Your task to perform on an android device: toggle improve location accuracy Image 0: 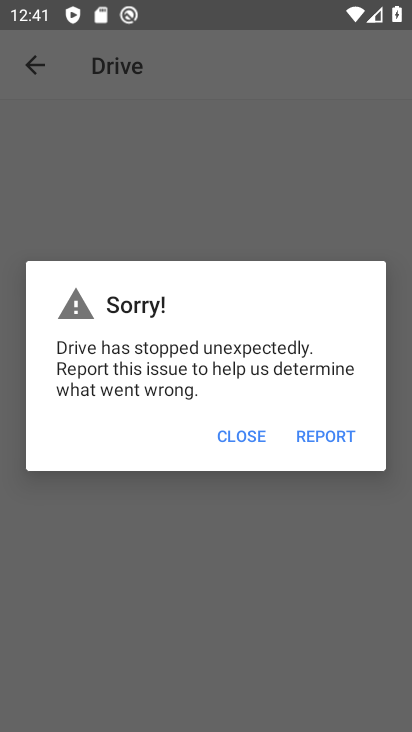
Step 0: press home button
Your task to perform on an android device: toggle improve location accuracy Image 1: 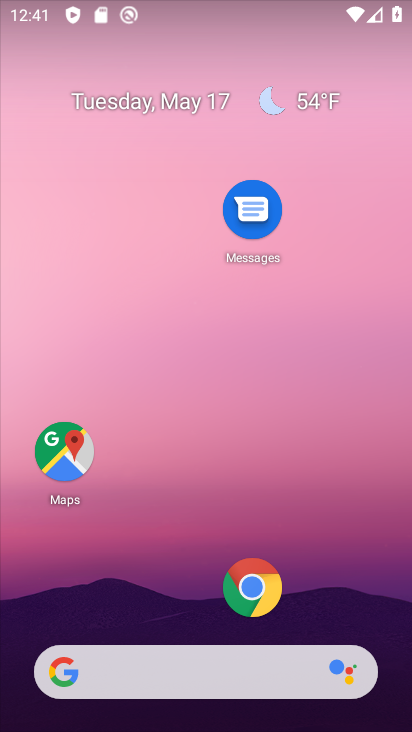
Step 1: drag from (150, 604) to (246, 7)
Your task to perform on an android device: toggle improve location accuracy Image 2: 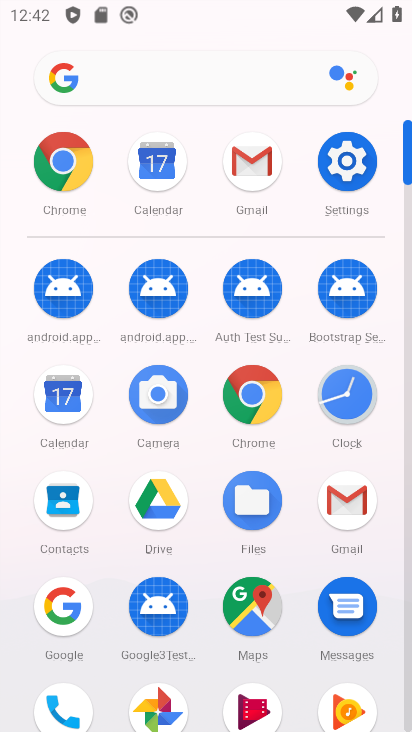
Step 2: click (351, 184)
Your task to perform on an android device: toggle improve location accuracy Image 3: 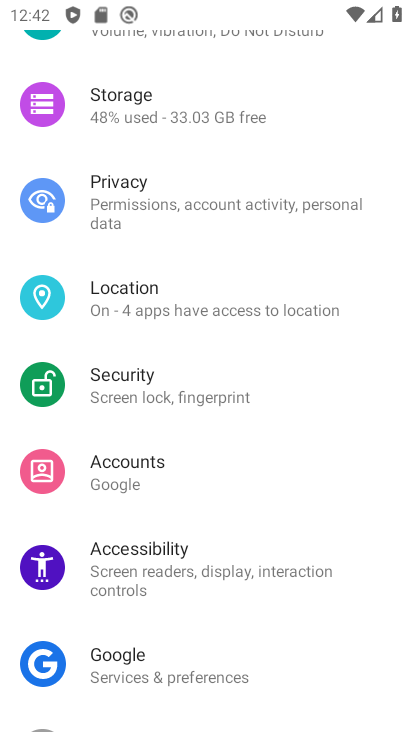
Step 3: click (180, 299)
Your task to perform on an android device: toggle improve location accuracy Image 4: 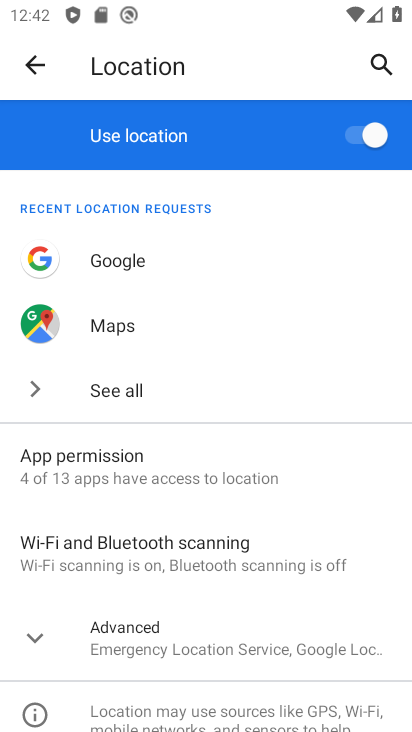
Step 4: drag from (212, 564) to (275, 299)
Your task to perform on an android device: toggle improve location accuracy Image 5: 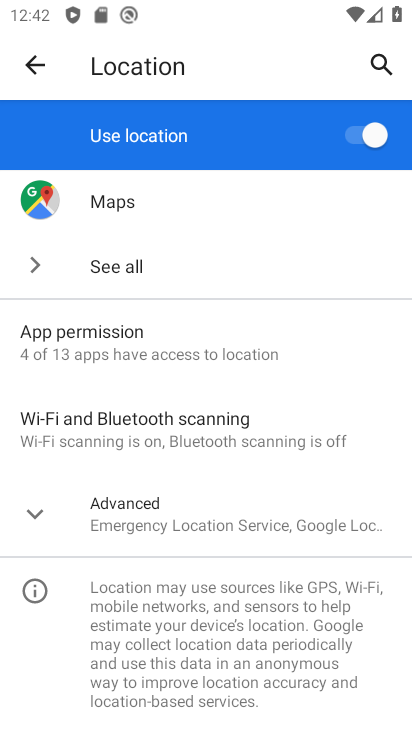
Step 5: click (188, 517)
Your task to perform on an android device: toggle improve location accuracy Image 6: 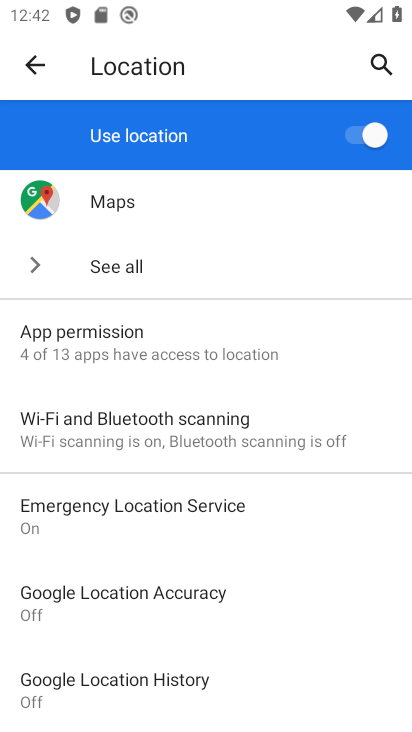
Step 6: click (169, 598)
Your task to perform on an android device: toggle improve location accuracy Image 7: 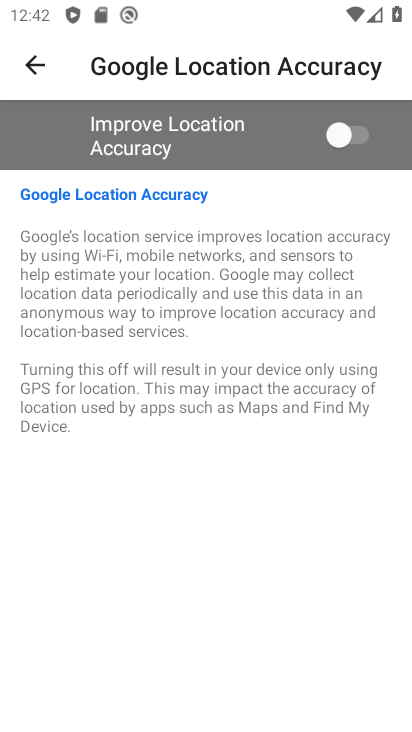
Step 7: click (342, 155)
Your task to perform on an android device: toggle improve location accuracy Image 8: 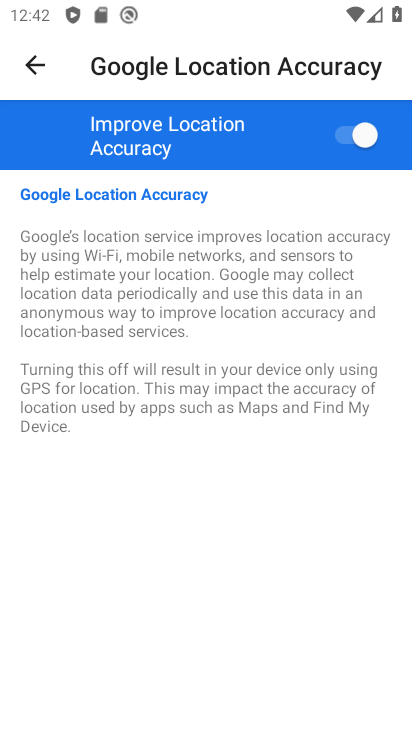
Step 8: task complete